Your task to perform on an android device: Toggle the flashlight Image 0: 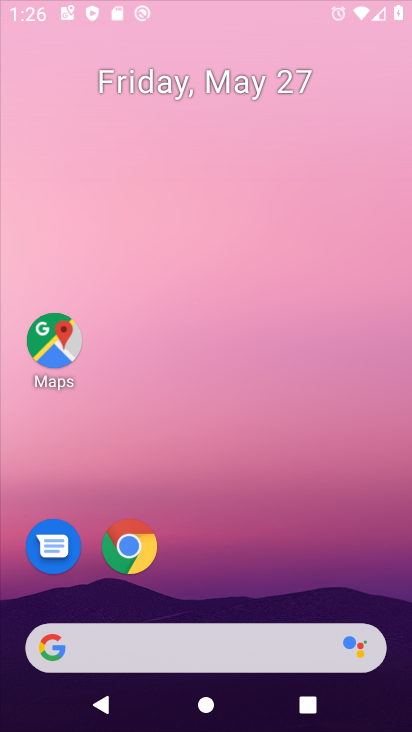
Step 0: click (284, 123)
Your task to perform on an android device: Toggle the flashlight Image 1: 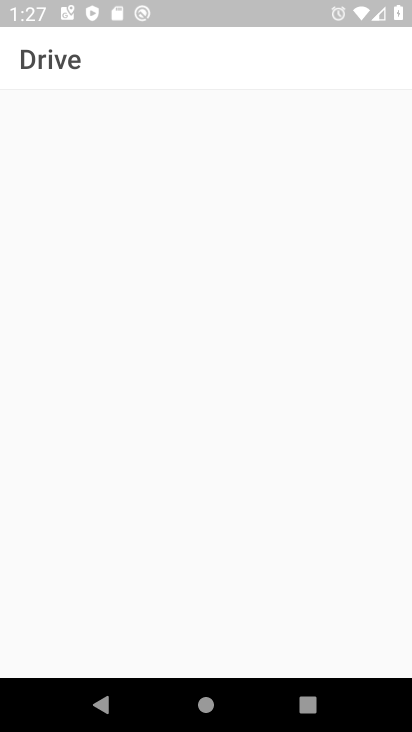
Step 1: press home button
Your task to perform on an android device: Toggle the flashlight Image 2: 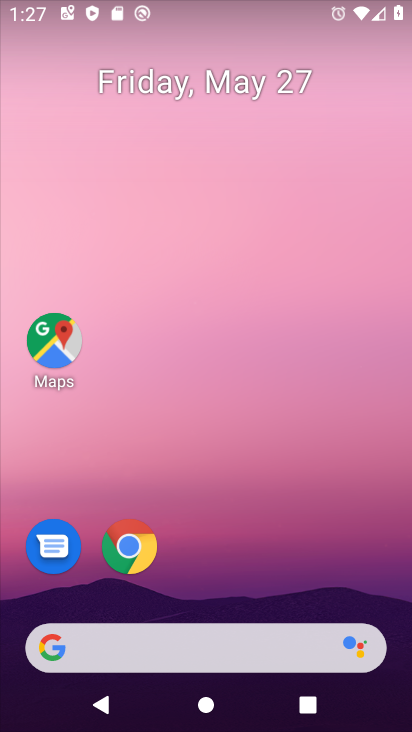
Step 2: drag from (264, 672) to (270, 111)
Your task to perform on an android device: Toggle the flashlight Image 3: 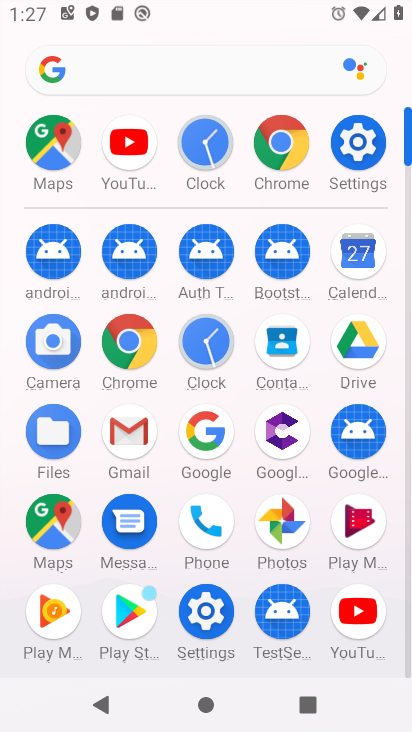
Step 3: click (338, 140)
Your task to perform on an android device: Toggle the flashlight Image 4: 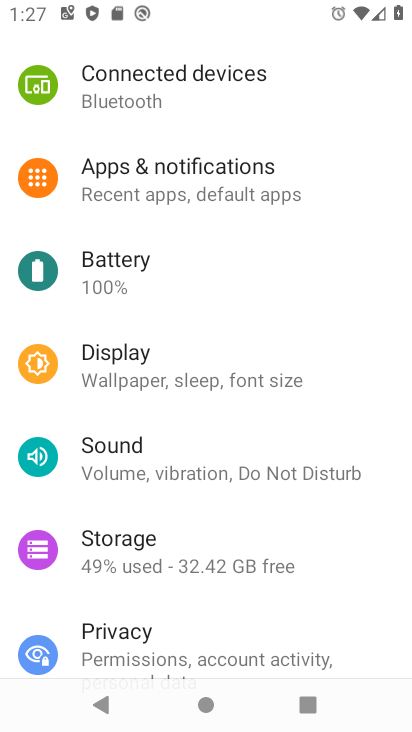
Step 4: drag from (190, 191) to (196, 331)
Your task to perform on an android device: Toggle the flashlight Image 5: 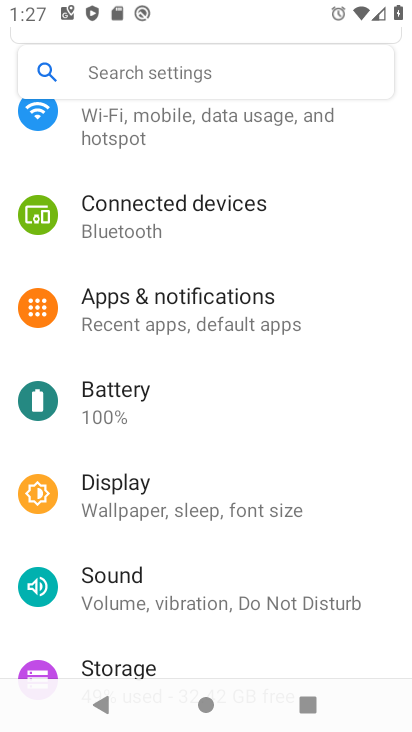
Step 5: click (136, 75)
Your task to perform on an android device: Toggle the flashlight Image 6: 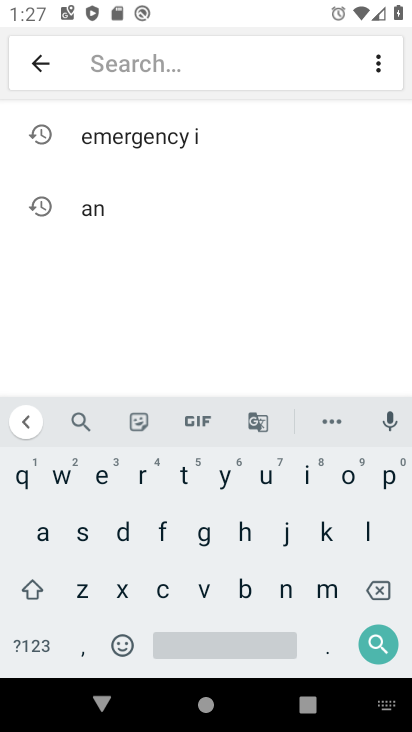
Step 6: click (169, 531)
Your task to perform on an android device: Toggle the flashlight Image 7: 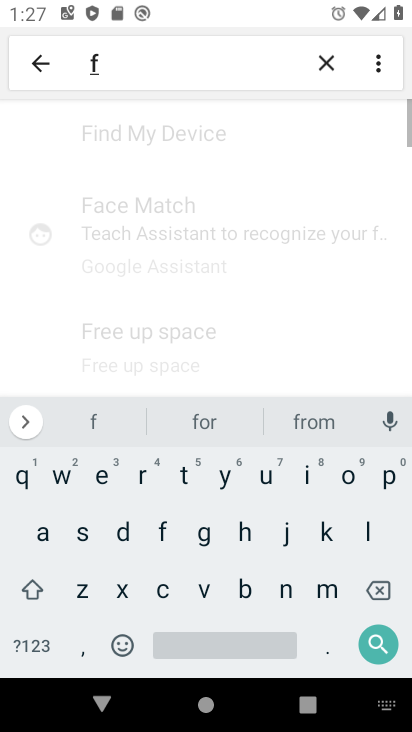
Step 7: click (363, 524)
Your task to perform on an android device: Toggle the flashlight Image 8: 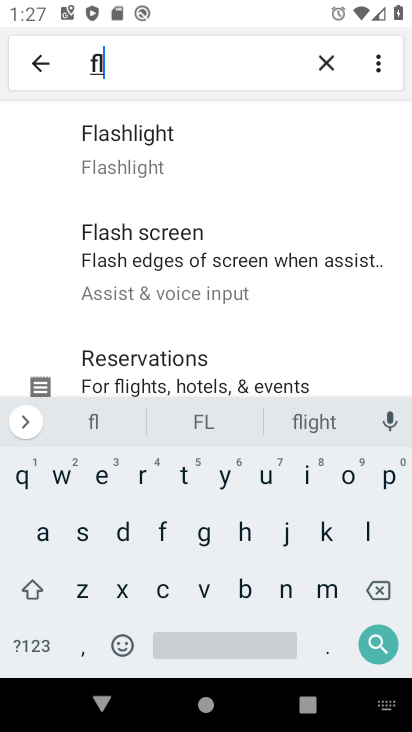
Step 8: click (152, 158)
Your task to perform on an android device: Toggle the flashlight Image 9: 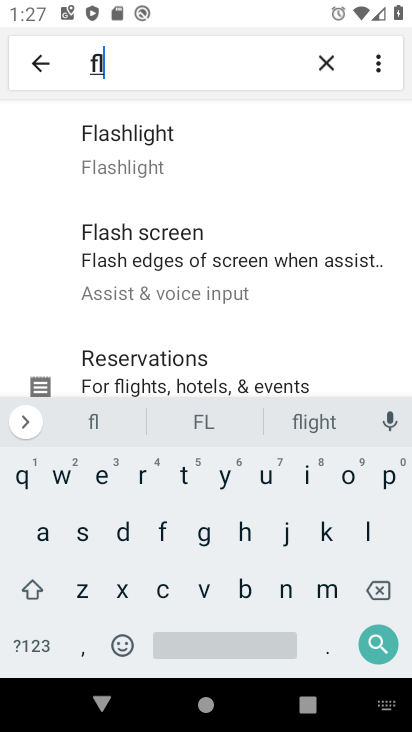
Step 9: task complete